Your task to perform on an android device: check out phone information Image 0: 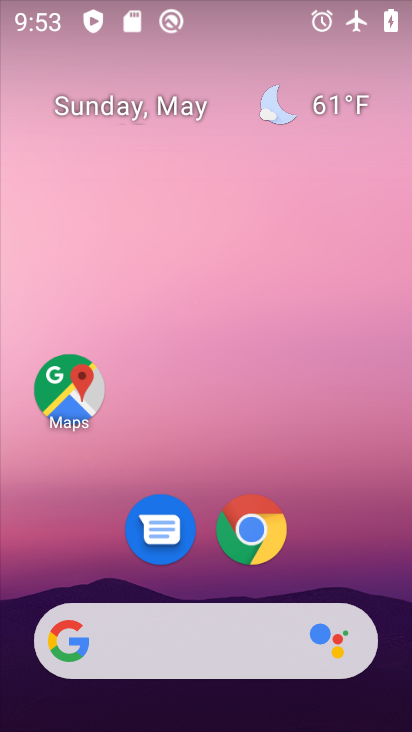
Step 0: drag from (230, 716) to (204, 147)
Your task to perform on an android device: check out phone information Image 1: 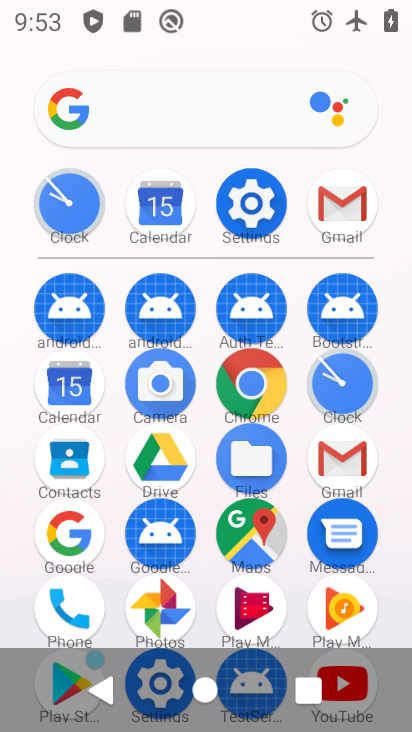
Step 1: click (257, 197)
Your task to perform on an android device: check out phone information Image 2: 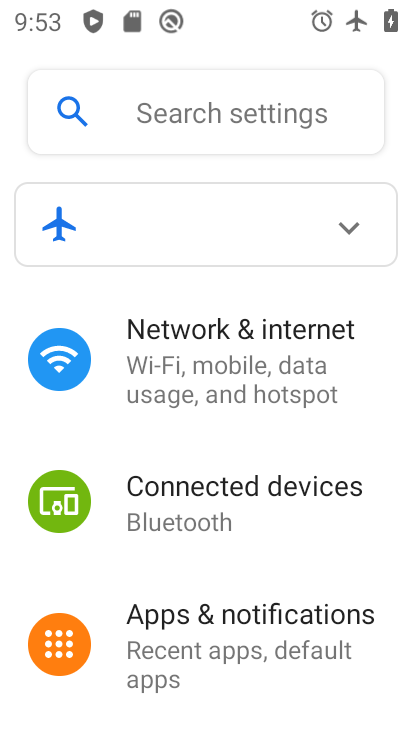
Step 2: drag from (252, 699) to (221, 321)
Your task to perform on an android device: check out phone information Image 3: 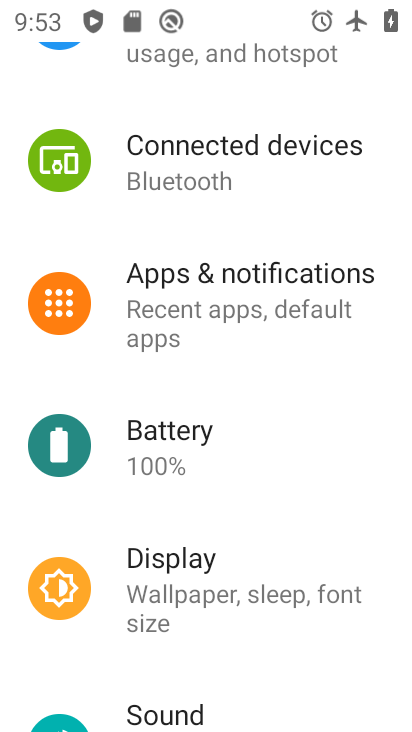
Step 3: drag from (251, 685) to (236, 253)
Your task to perform on an android device: check out phone information Image 4: 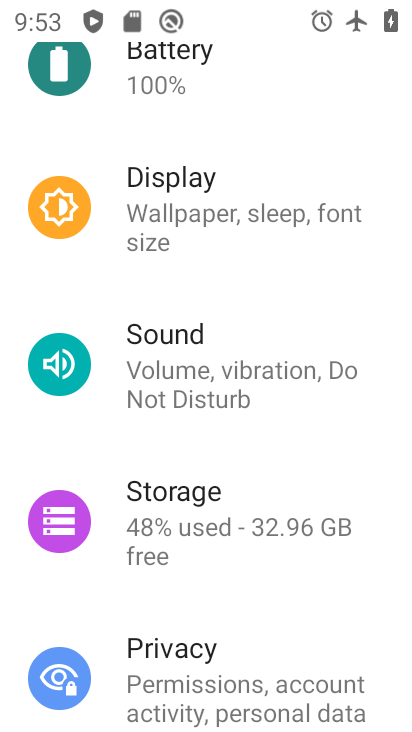
Step 4: drag from (240, 656) to (227, 246)
Your task to perform on an android device: check out phone information Image 5: 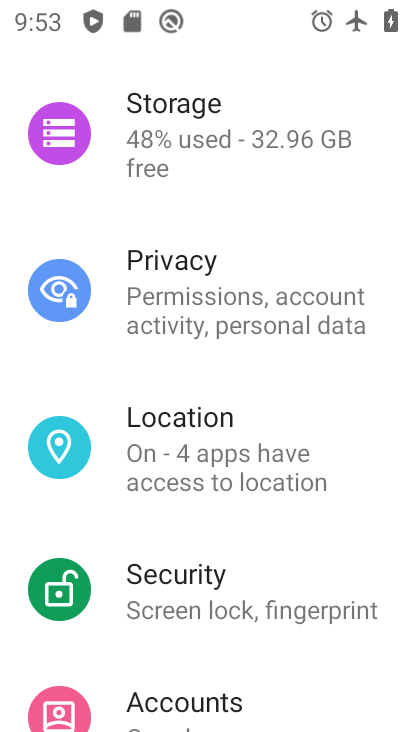
Step 5: drag from (202, 681) to (202, 240)
Your task to perform on an android device: check out phone information Image 6: 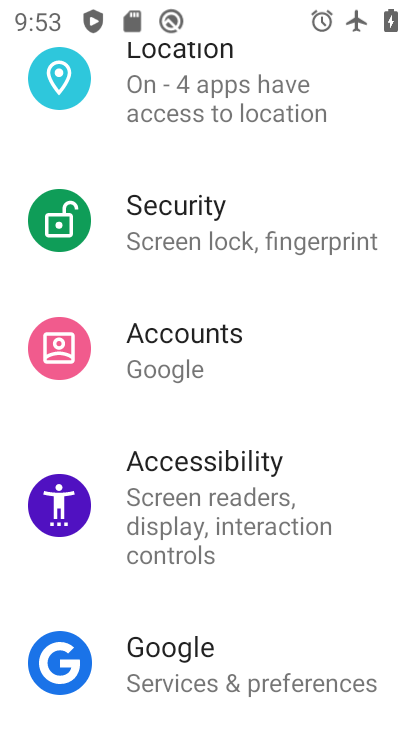
Step 6: drag from (228, 659) to (237, 237)
Your task to perform on an android device: check out phone information Image 7: 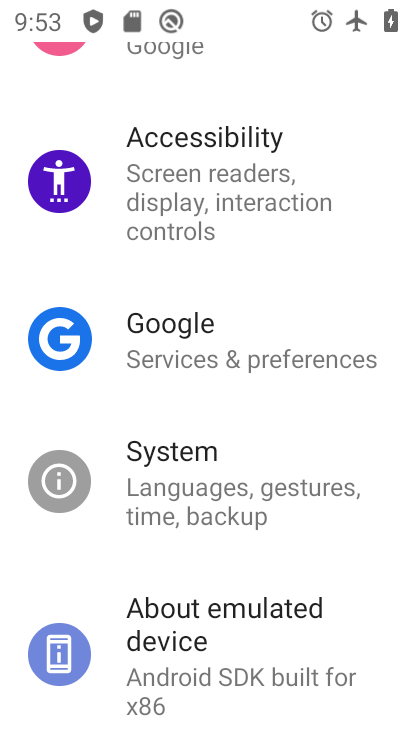
Step 7: drag from (245, 572) to (245, 324)
Your task to perform on an android device: check out phone information Image 8: 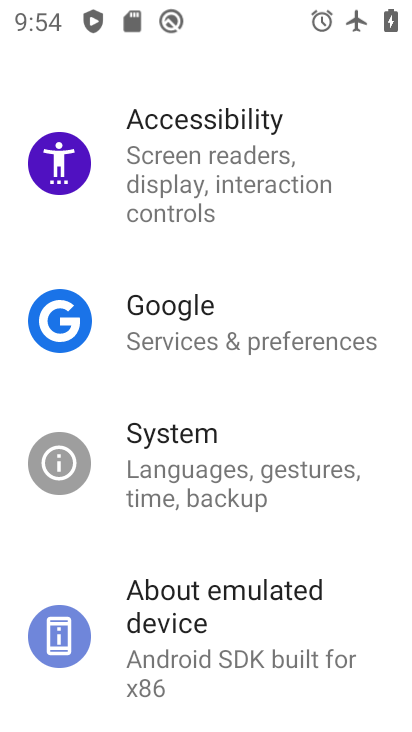
Step 8: drag from (226, 632) to (230, 294)
Your task to perform on an android device: check out phone information Image 9: 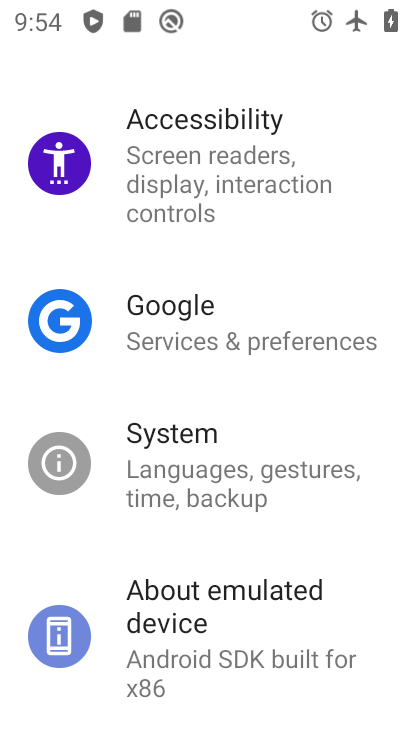
Step 9: click (215, 626)
Your task to perform on an android device: check out phone information Image 10: 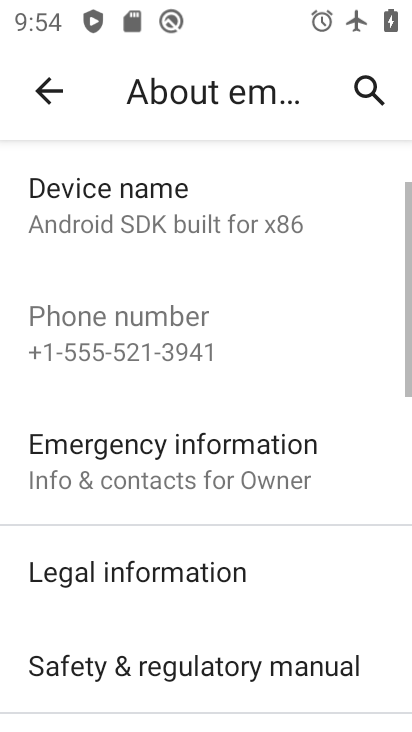
Step 10: task complete